Your task to perform on an android device: turn on sleep mode Image 0: 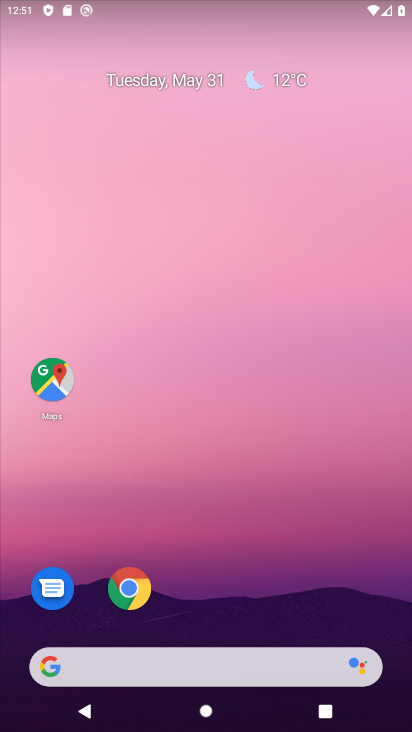
Step 0: drag from (386, 705) to (332, 217)
Your task to perform on an android device: turn on sleep mode Image 1: 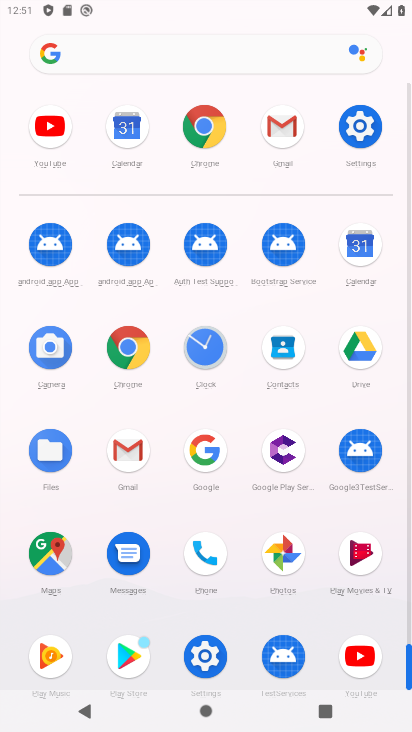
Step 1: click (361, 109)
Your task to perform on an android device: turn on sleep mode Image 2: 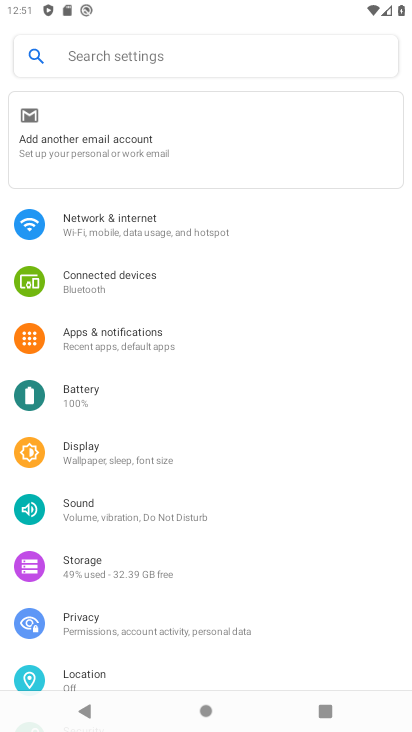
Step 2: click (101, 461)
Your task to perform on an android device: turn on sleep mode Image 3: 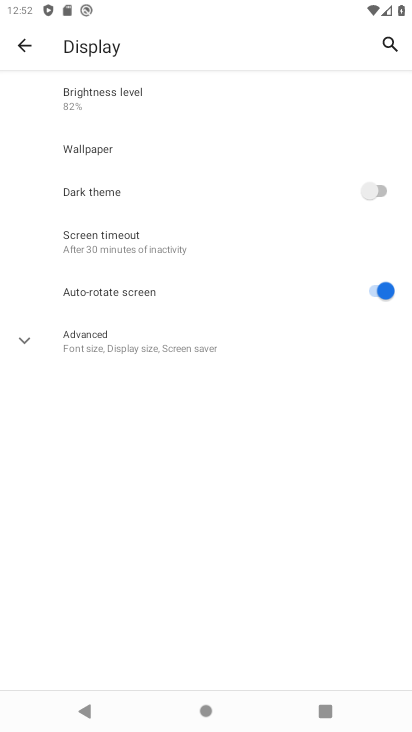
Step 3: click (91, 235)
Your task to perform on an android device: turn on sleep mode Image 4: 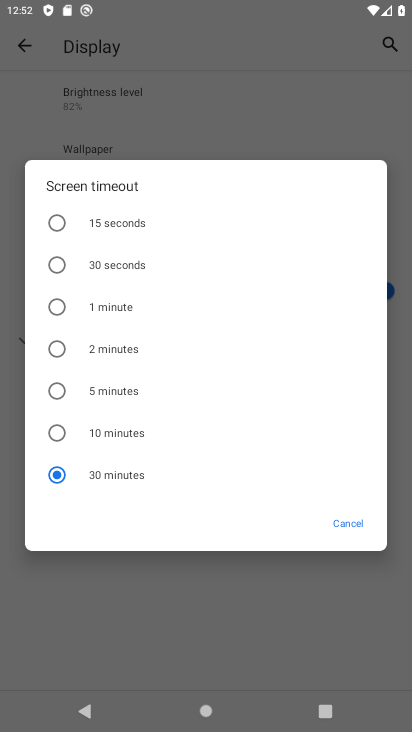
Step 4: task complete